Your task to perform on an android device: Go to CNN.com Image 0: 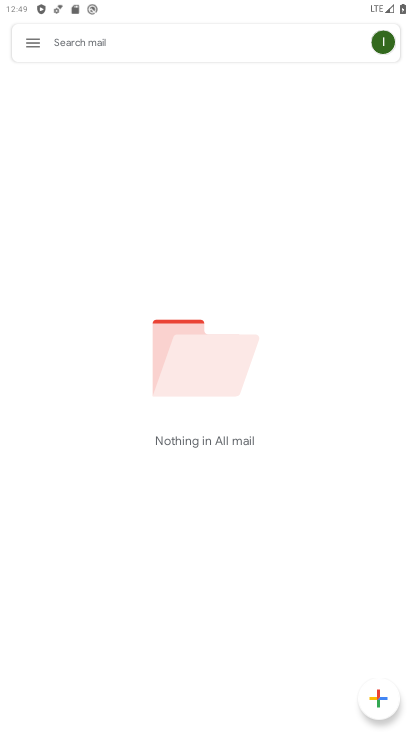
Step 0: press home button
Your task to perform on an android device: Go to CNN.com Image 1: 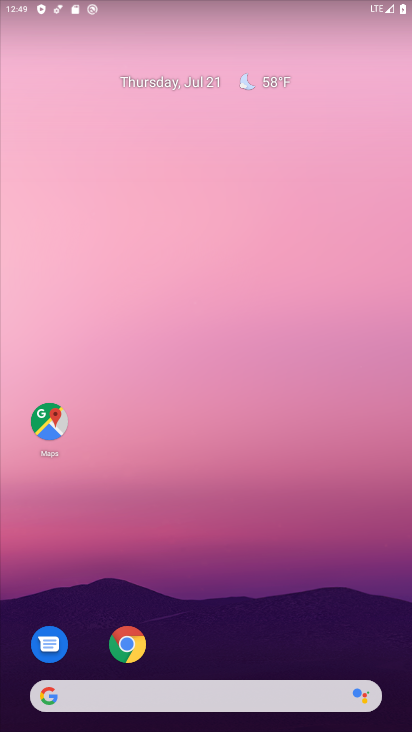
Step 1: drag from (370, 609) to (367, 255)
Your task to perform on an android device: Go to CNN.com Image 2: 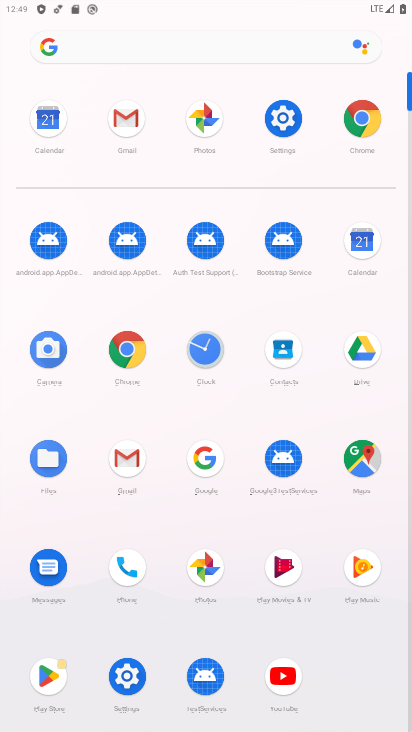
Step 2: click (134, 351)
Your task to perform on an android device: Go to CNN.com Image 3: 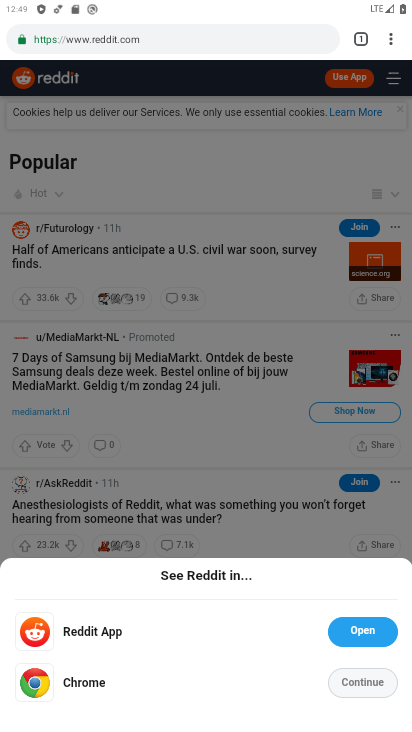
Step 3: click (125, 36)
Your task to perform on an android device: Go to CNN.com Image 4: 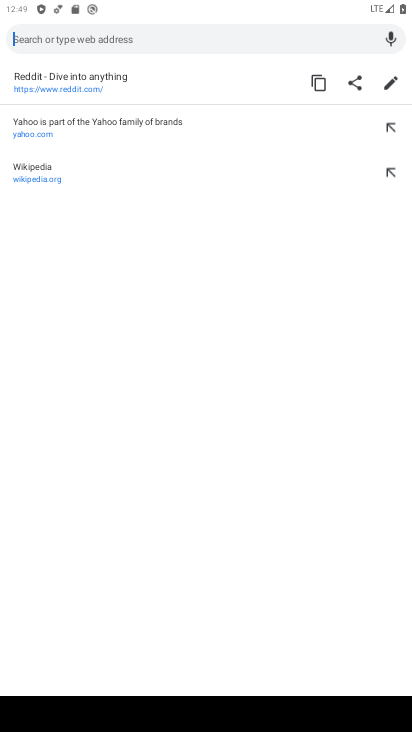
Step 4: type "cnn.com"
Your task to perform on an android device: Go to CNN.com Image 5: 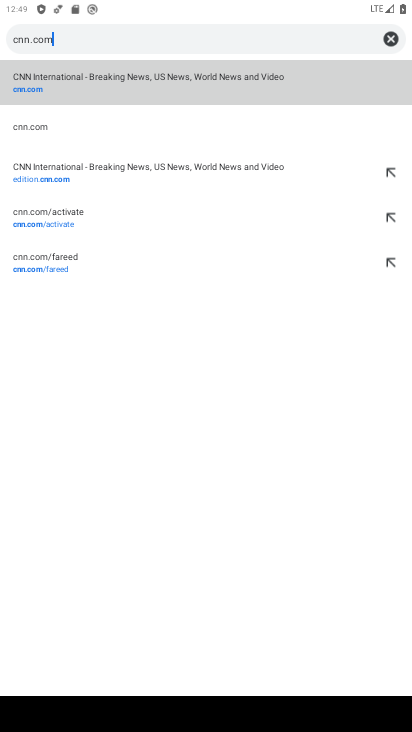
Step 5: click (236, 89)
Your task to perform on an android device: Go to CNN.com Image 6: 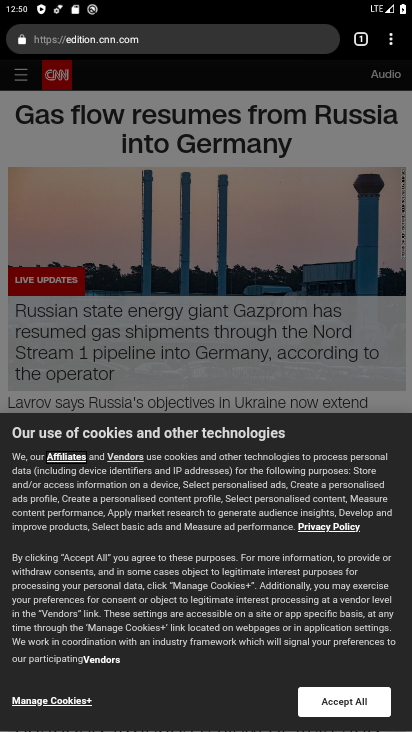
Step 6: task complete